Your task to perform on an android device: toggle notifications settings in the gmail app Image 0: 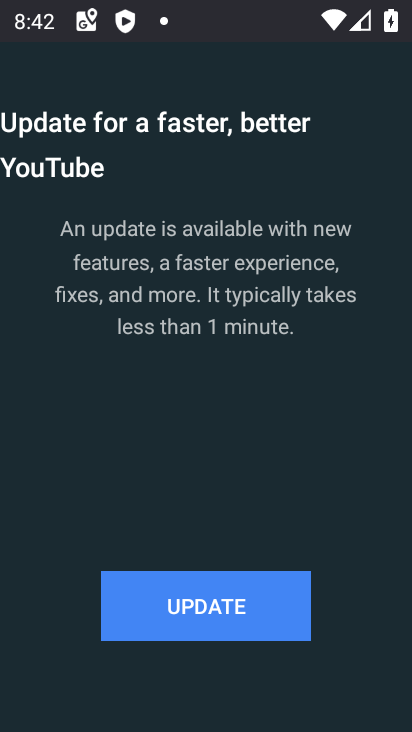
Step 0: press home button
Your task to perform on an android device: toggle notifications settings in the gmail app Image 1: 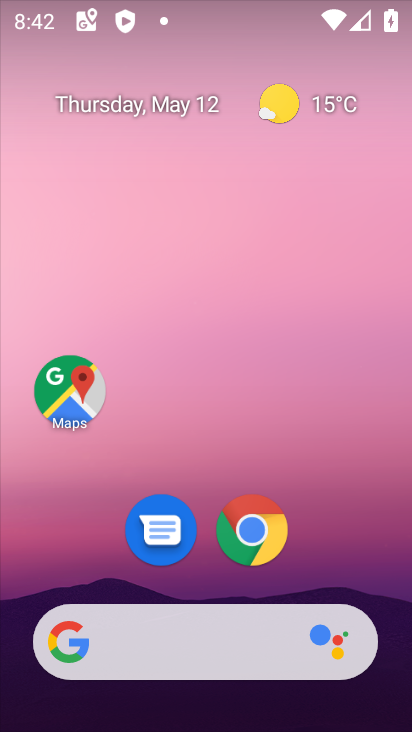
Step 1: click (191, 667)
Your task to perform on an android device: toggle notifications settings in the gmail app Image 2: 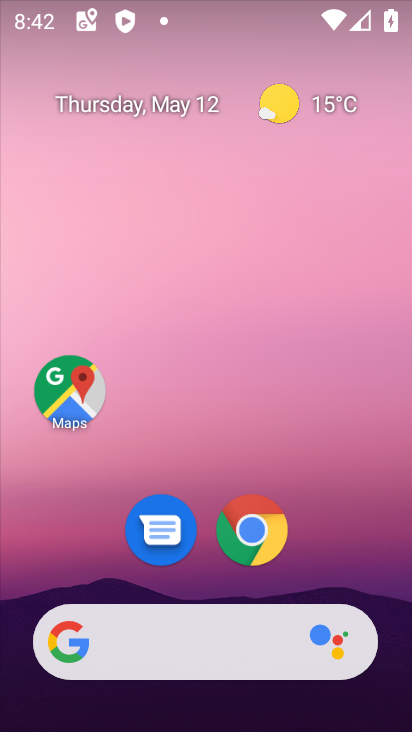
Step 2: drag from (220, 704) to (244, 70)
Your task to perform on an android device: toggle notifications settings in the gmail app Image 3: 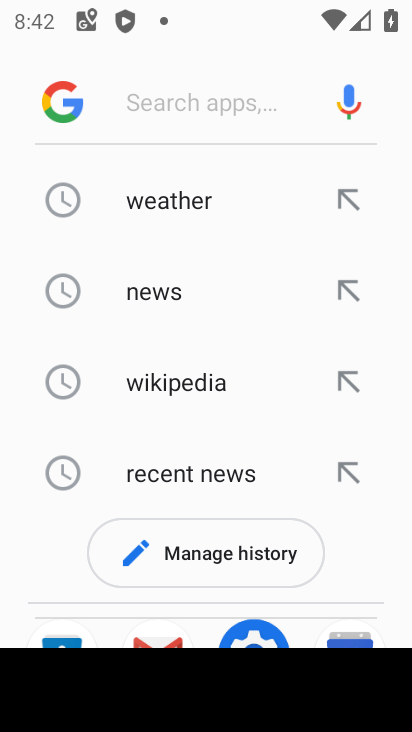
Step 3: press home button
Your task to perform on an android device: toggle notifications settings in the gmail app Image 4: 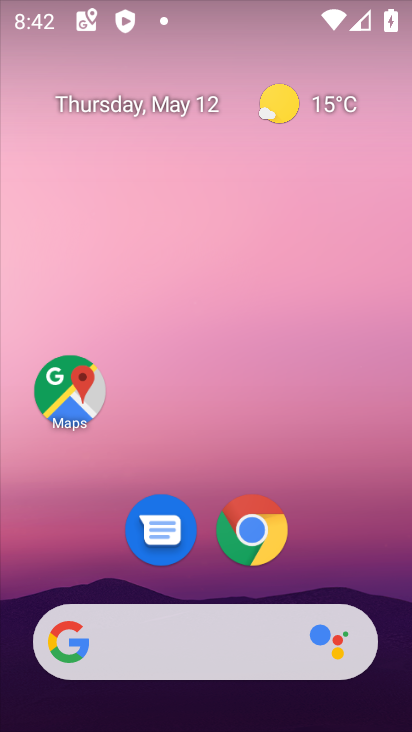
Step 4: drag from (176, 701) to (236, 78)
Your task to perform on an android device: toggle notifications settings in the gmail app Image 5: 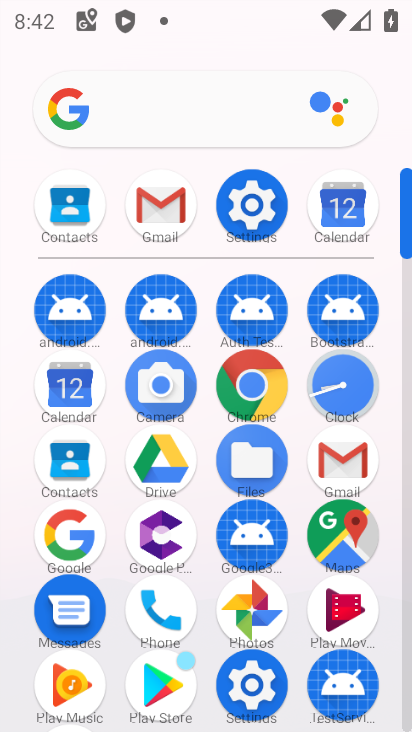
Step 5: click (175, 204)
Your task to perform on an android device: toggle notifications settings in the gmail app Image 6: 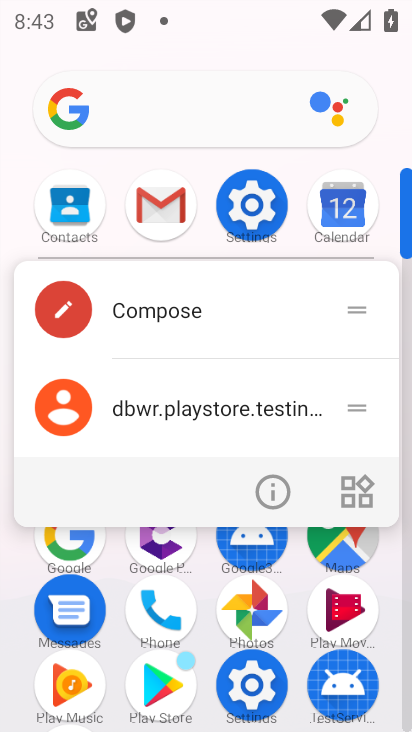
Step 6: click (268, 491)
Your task to perform on an android device: toggle notifications settings in the gmail app Image 7: 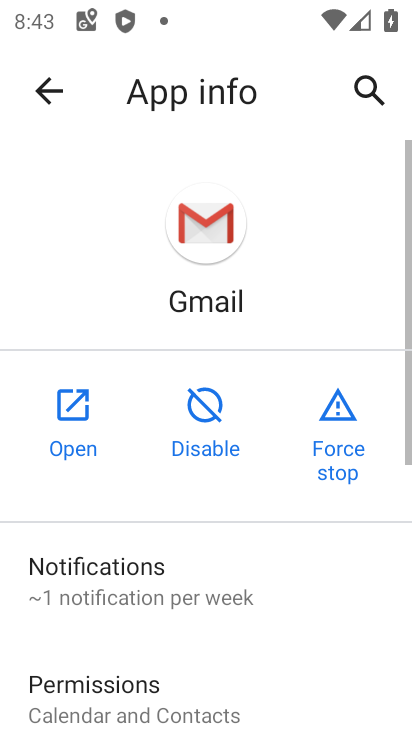
Step 7: click (82, 575)
Your task to perform on an android device: toggle notifications settings in the gmail app Image 8: 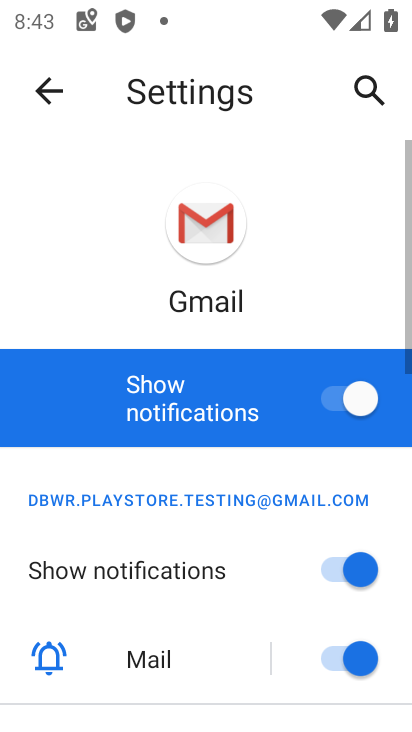
Step 8: click (357, 407)
Your task to perform on an android device: toggle notifications settings in the gmail app Image 9: 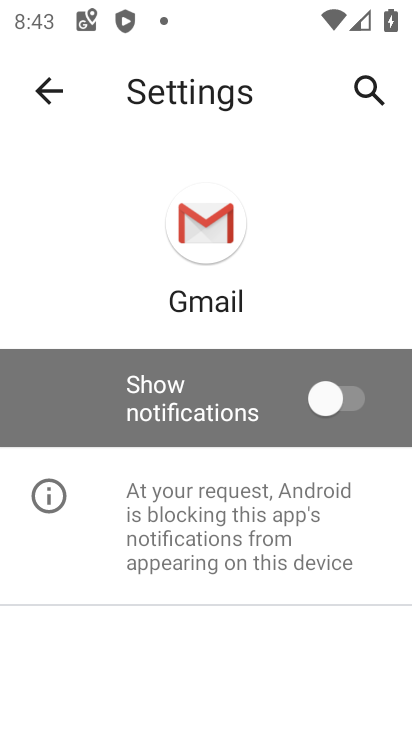
Step 9: task complete